Your task to perform on an android device: Turn on the flashlight Image 0: 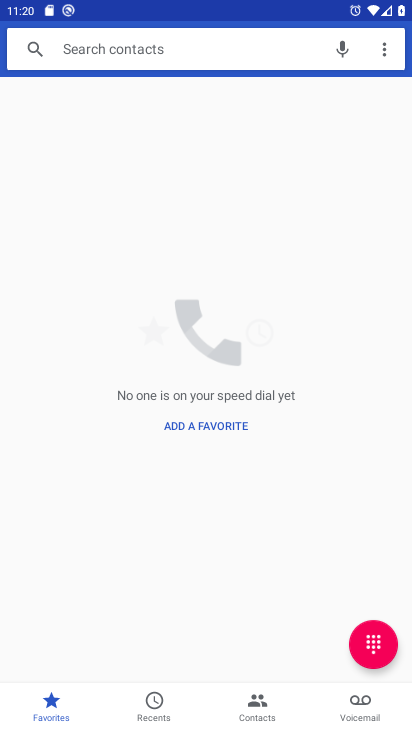
Step 0: press home button
Your task to perform on an android device: Turn on the flashlight Image 1: 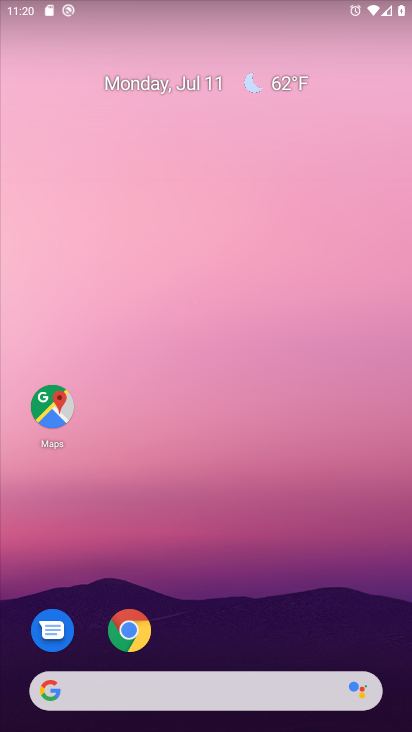
Step 1: drag from (249, 619) to (193, 24)
Your task to perform on an android device: Turn on the flashlight Image 2: 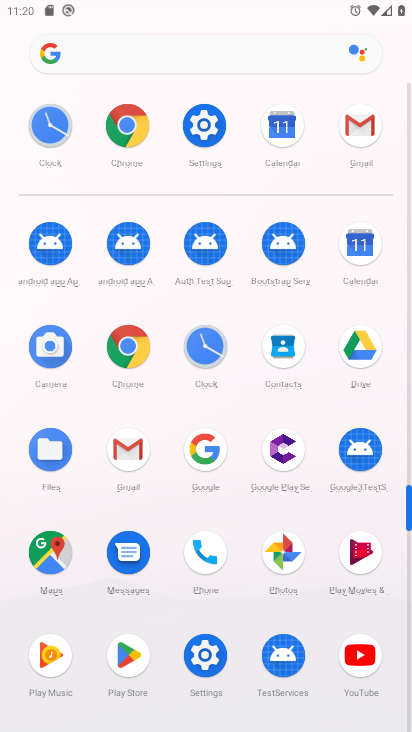
Step 2: click (207, 113)
Your task to perform on an android device: Turn on the flashlight Image 3: 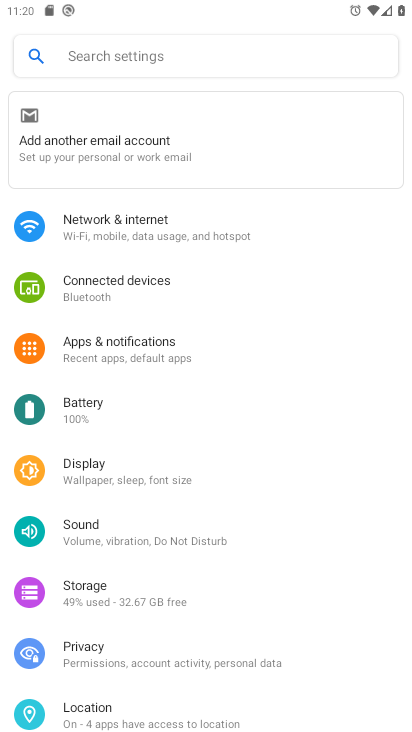
Step 3: click (189, 49)
Your task to perform on an android device: Turn on the flashlight Image 4: 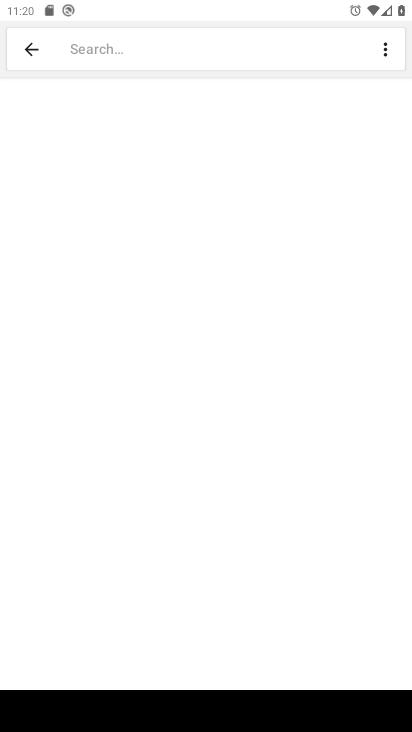
Step 4: type "Flashlight"
Your task to perform on an android device: Turn on the flashlight Image 5: 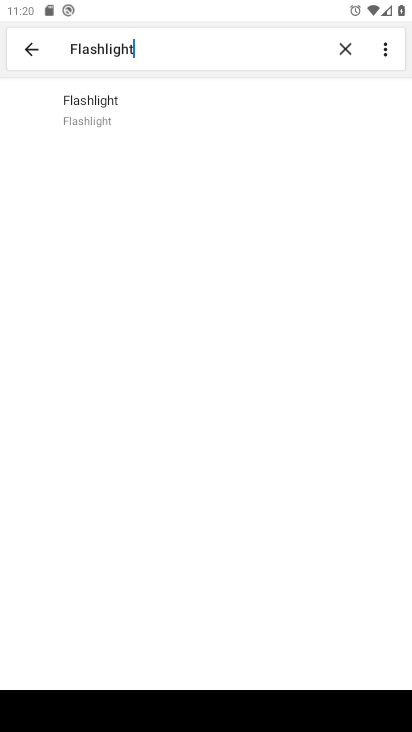
Step 5: click (90, 97)
Your task to perform on an android device: Turn on the flashlight Image 6: 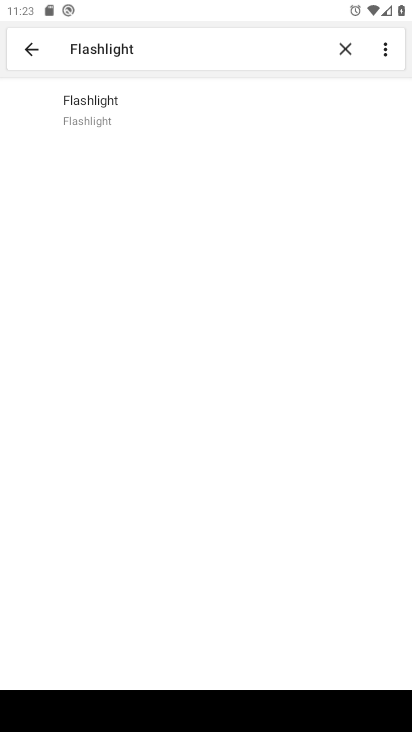
Step 6: task complete